Your task to perform on an android device: Go to network settings Image 0: 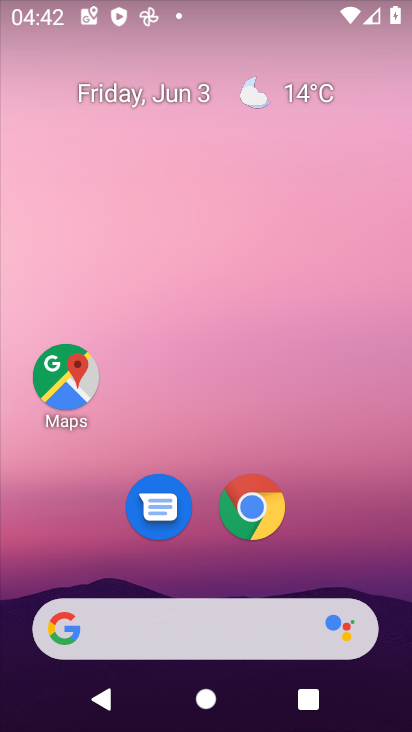
Step 0: drag from (362, 566) to (358, 142)
Your task to perform on an android device: Go to network settings Image 1: 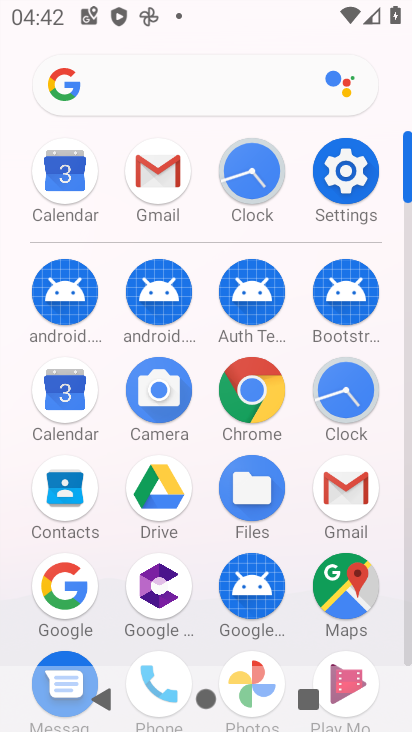
Step 1: click (351, 187)
Your task to perform on an android device: Go to network settings Image 2: 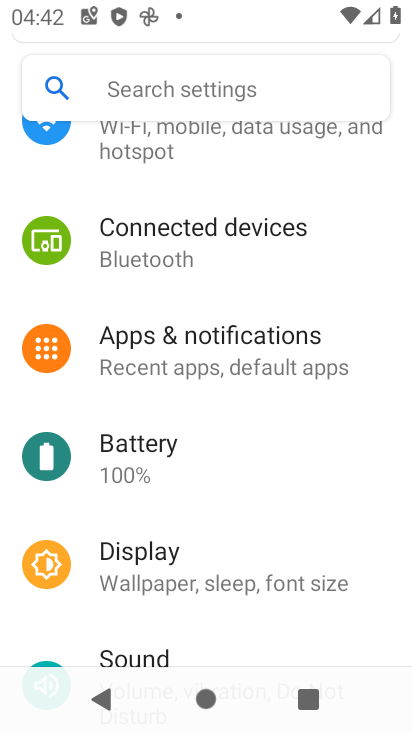
Step 2: drag from (258, 626) to (252, 712)
Your task to perform on an android device: Go to network settings Image 3: 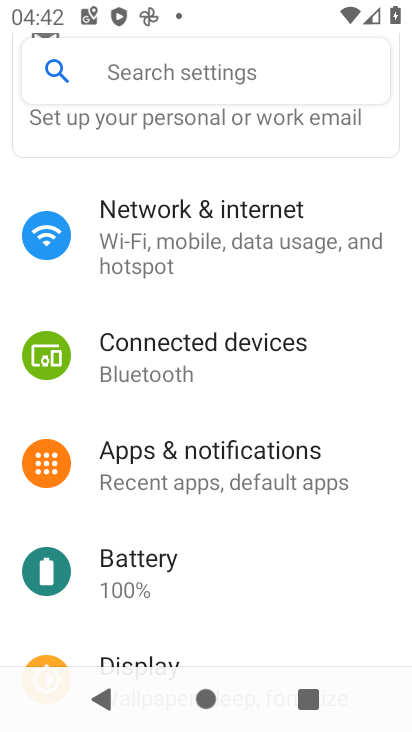
Step 3: click (208, 267)
Your task to perform on an android device: Go to network settings Image 4: 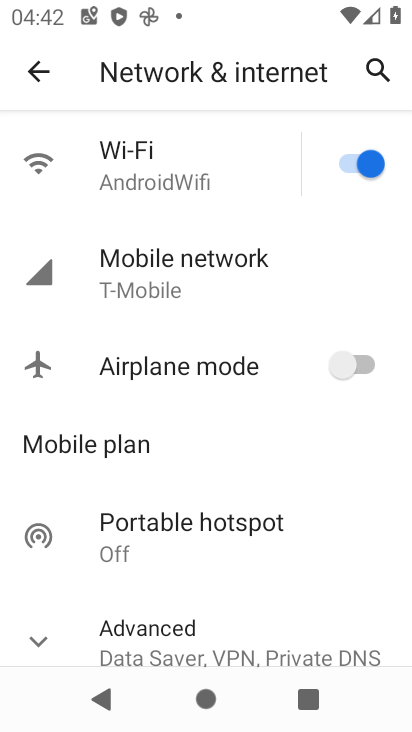
Step 4: click (169, 279)
Your task to perform on an android device: Go to network settings Image 5: 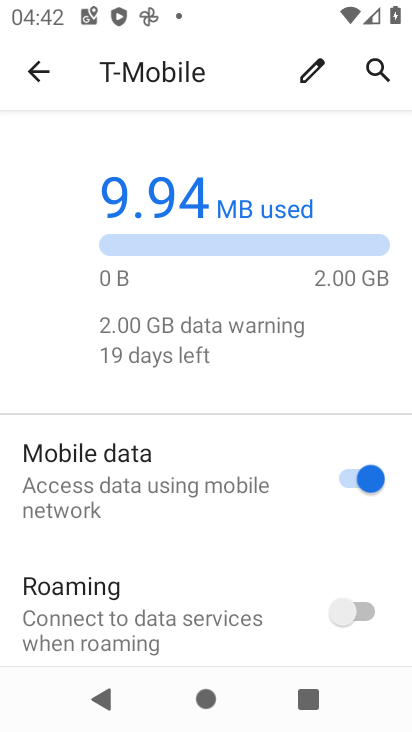
Step 5: task complete